Your task to perform on an android device: Open Google Maps Image 0: 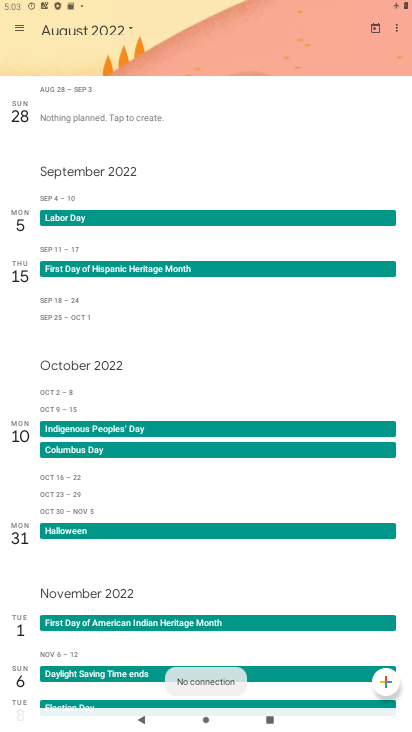
Step 0: press home button
Your task to perform on an android device: Open Google Maps Image 1: 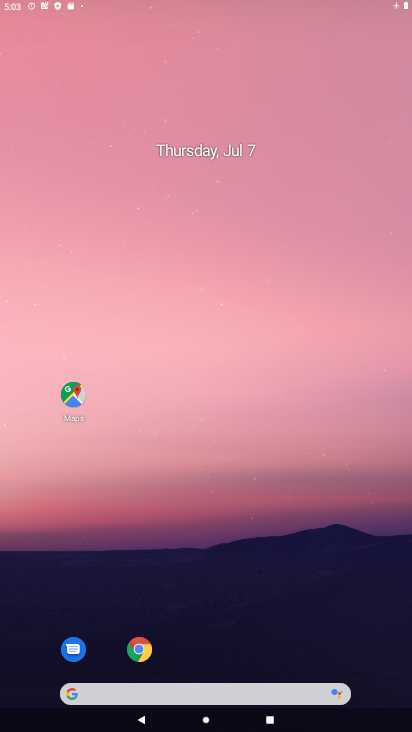
Step 1: drag from (391, 665) to (264, 142)
Your task to perform on an android device: Open Google Maps Image 2: 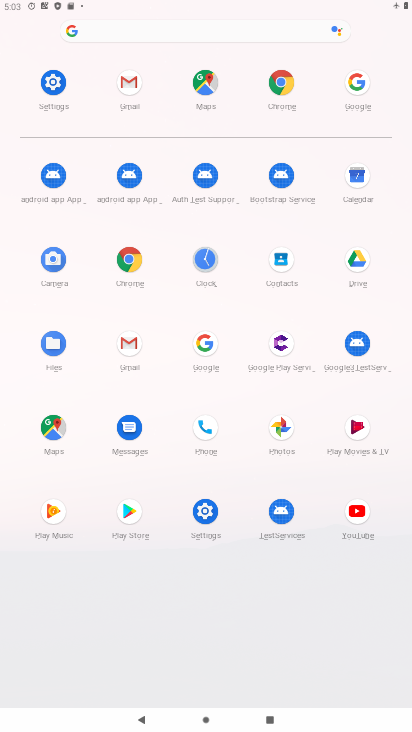
Step 2: click (27, 421)
Your task to perform on an android device: Open Google Maps Image 3: 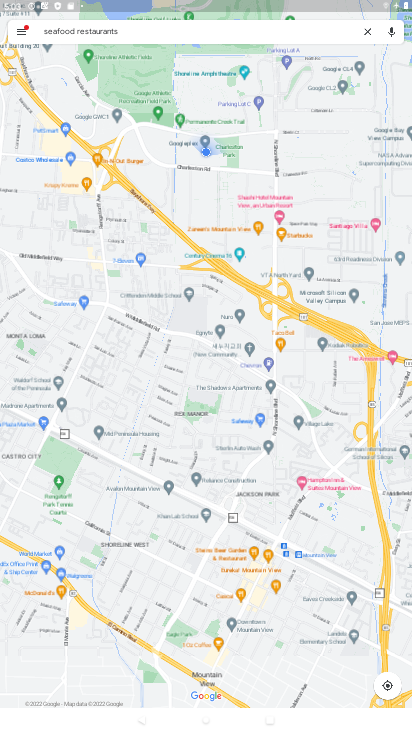
Step 3: click (367, 30)
Your task to perform on an android device: Open Google Maps Image 4: 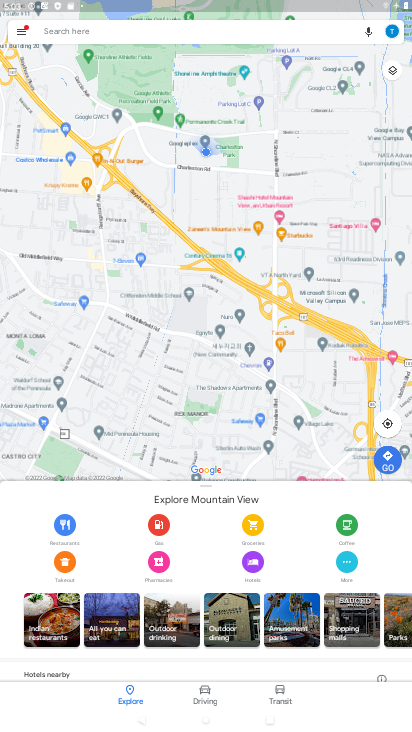
Step 4: task complete